Your task to perform on an android device: read, delete, or share a saved page in the chrome app Image 0: 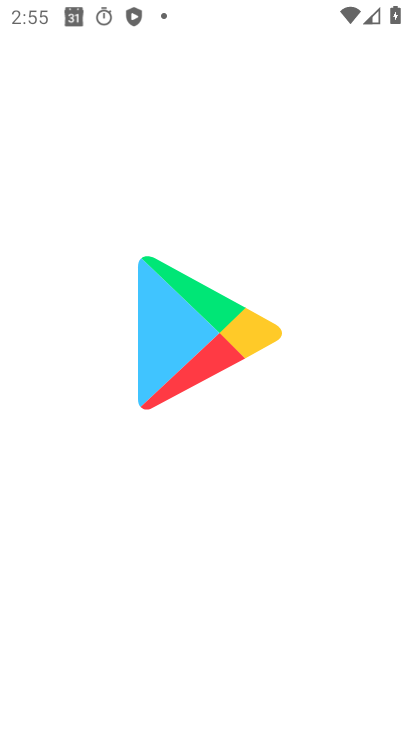
Step 0: drag from (399, 679) to (236, 60)
Your task to perform on an android device: read, delete, or share a saved page in the chrome app Image 1: 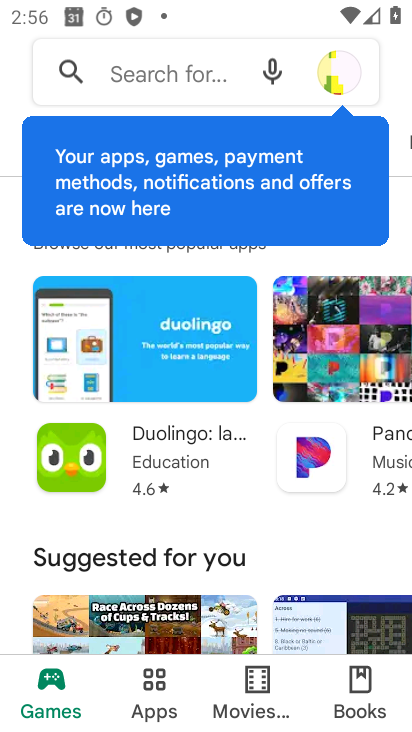
Step 1: press home button
Your task to perform on an android device: read, delete, or share a saved page in the chrome app Image 2: 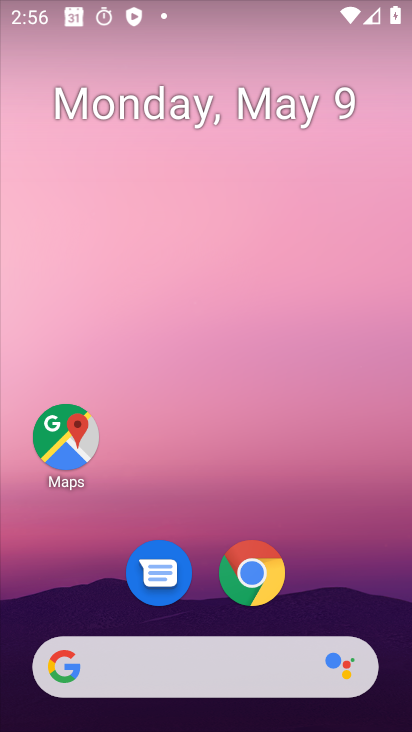
Step 2: drag from (391, 564) to (147, 173)
Your task to perform on an android device: read, delete, or share a saved page in the chrome app Image 3: 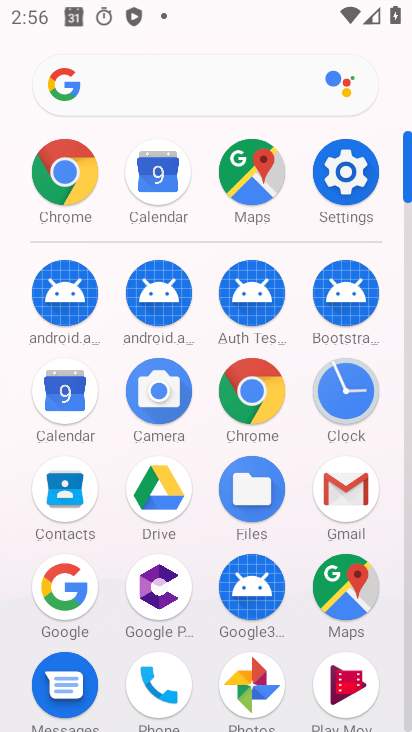
Step 3: click (263, 380)
Your task to perform on an android device: read, delete, or share a saved page in the chrome app Image 4: 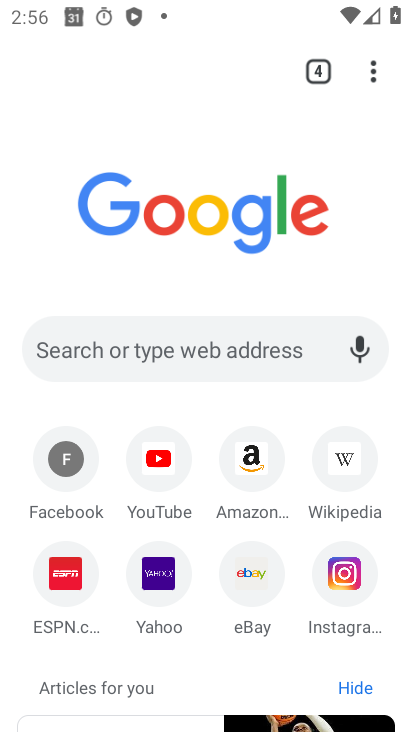
Step 4: click (366, 71)
Your task to perform on an android device: read, delete, or share a saved page in the chrome app Image 5: 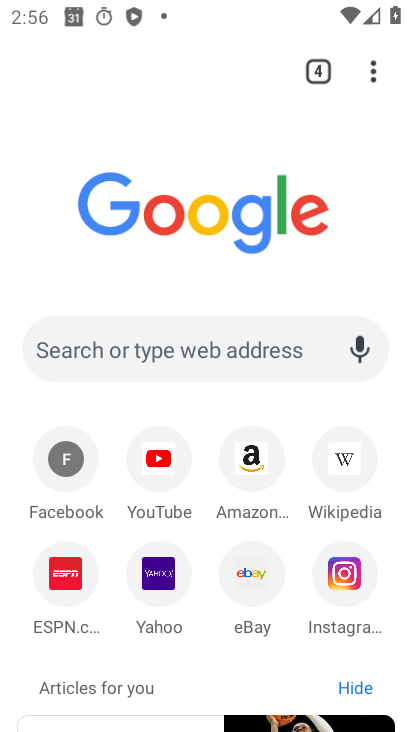
Step 5: click (365, 66)
Your task to perform on an android device: read, delete, or share a saved page in the chrome app Image 6: 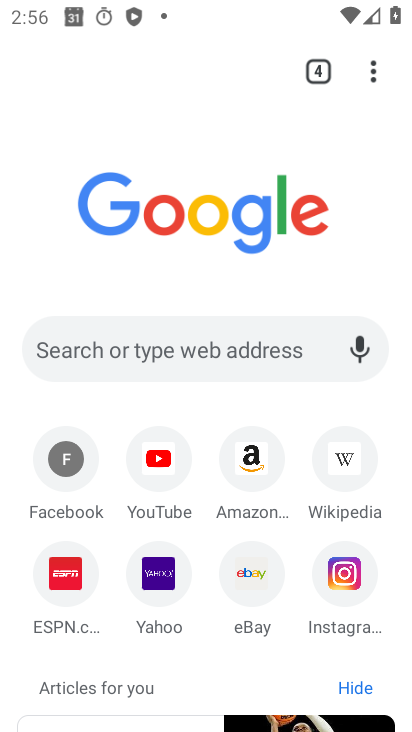
Step 6: click (372, 68)
Your task to perform on an android device: read, delete, or share a saved page in the chrome app Image 7: 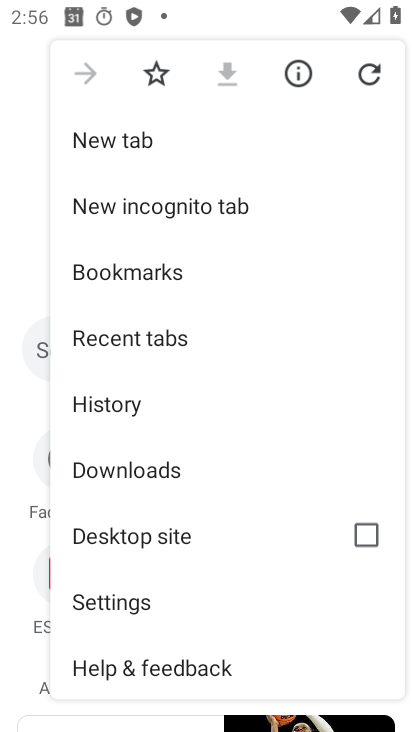
Step 7: click (372, 68)
Your task to perform on an android device: read, delete, or share a saved page in the chrome app Image 8: 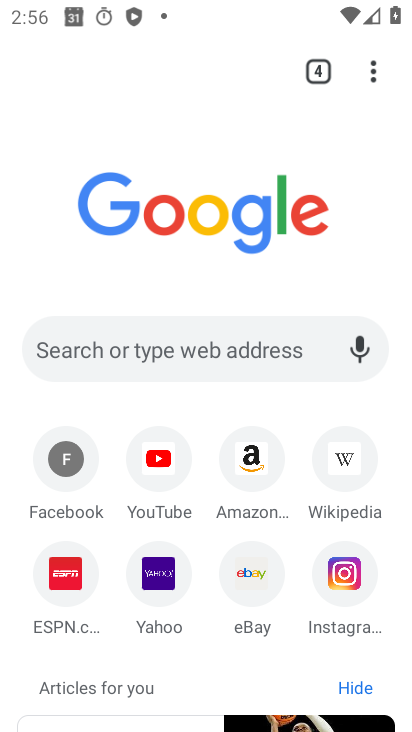
Step 8: click (372, 68)
Your task to perform on an android device: read, delete, or share a saved page in the chrome app Image 9: 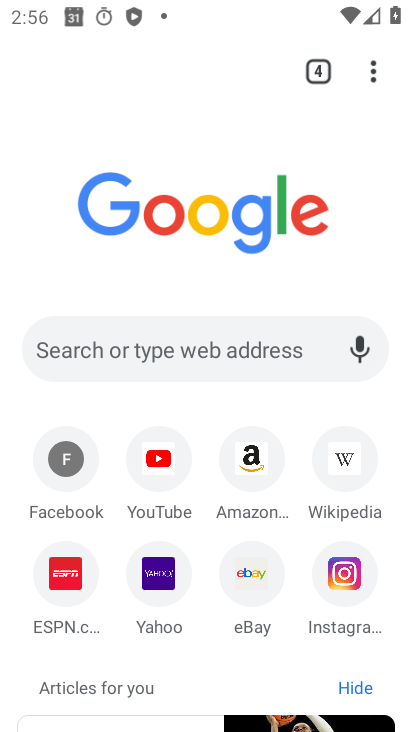
Step 9: click (372, 68)
Your task to perform on an android device: read, delete, or share a saved page in the chrome app Image 10: 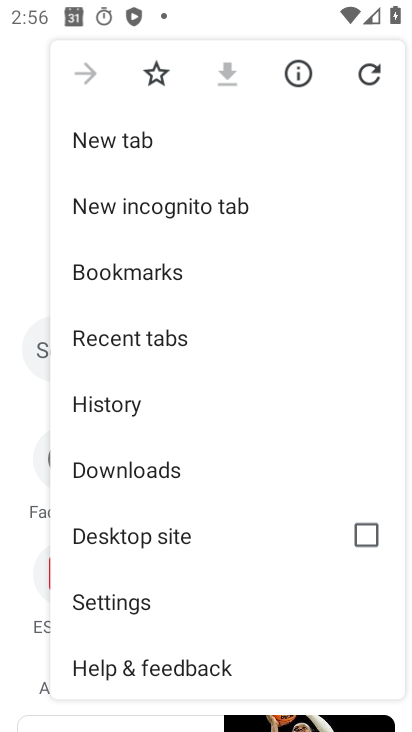
Step 10: click (128, 344)
Your task to perform on an android device: read, delete, or share a saved page in the chrome app Image 11: 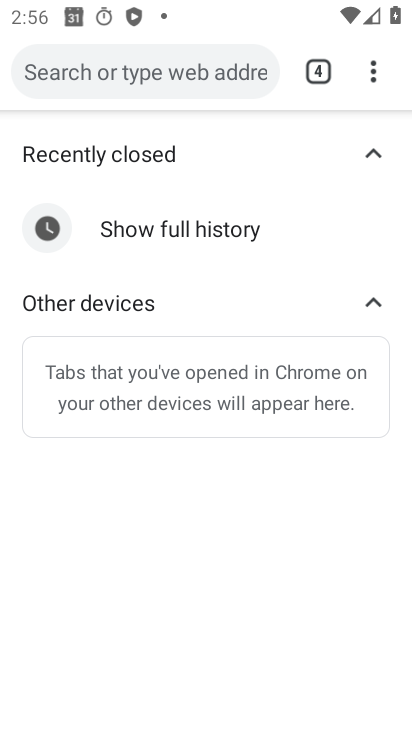
Step 11: click (361, 64)
Your task to perform on an android device: read, delete, or share a saved page in the chrome app Image 12: 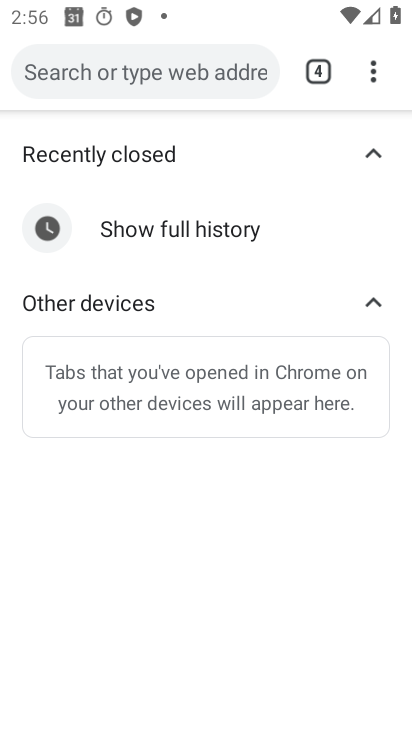
Step 12: click (362, 65)
Your task to perform on an android device: read, delete, or share a saved page in the chrome app Image 13: 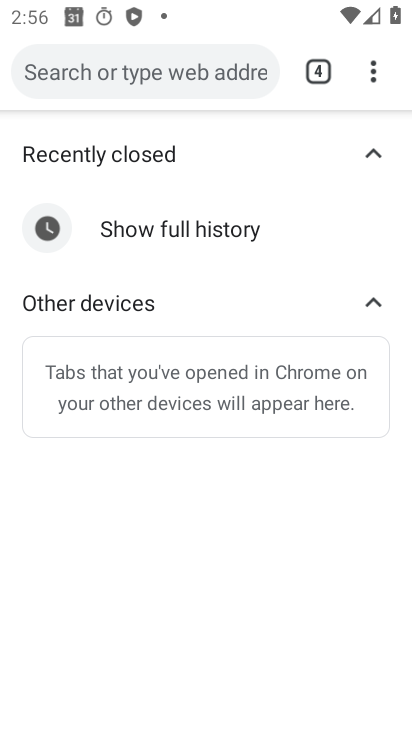
Step 13: drag from (371, 64) to (118, 464)
Your task to perform on an android device: read, delete, or share a saved page in the chrome app Image 14: 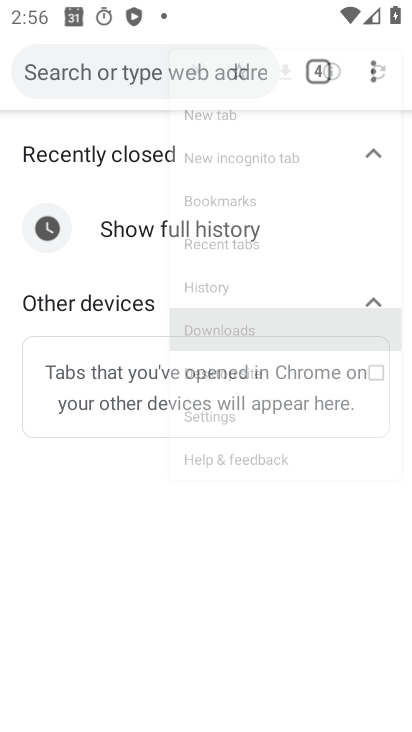
Step 14: click (118, 464)
Your task to perform on an android device: read, delete, or share a saved page in the chrome app Image 15: 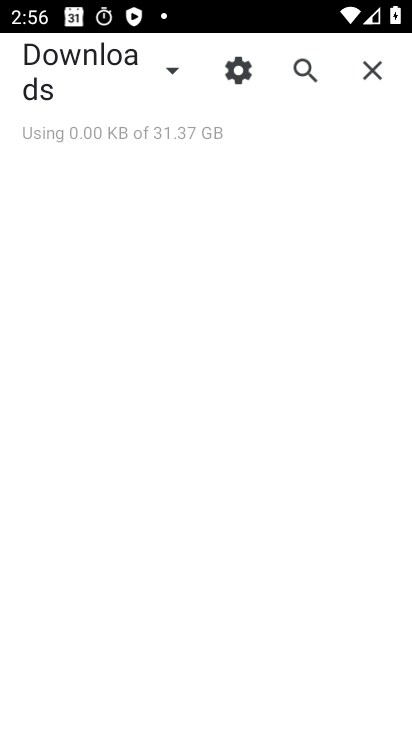
Step 15: click (176, 61)
Your task to perform on an android device: read, delete, or share a saved page in the chrome app Image 16: 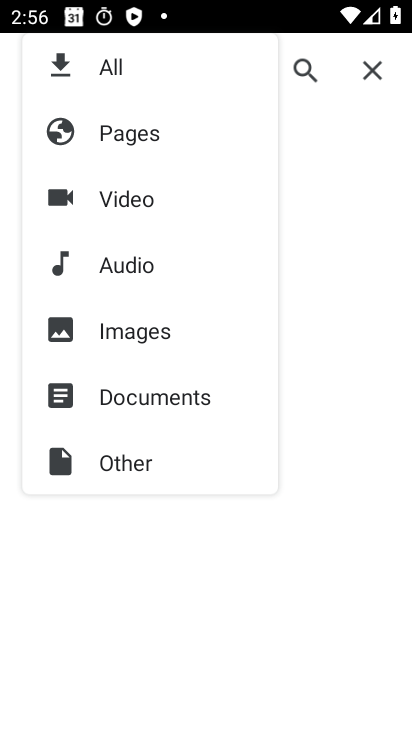
Step 16: click (127, 203)
Your task to perform on an android device: read, delete, or share a saved page in the chrome app Image 17: 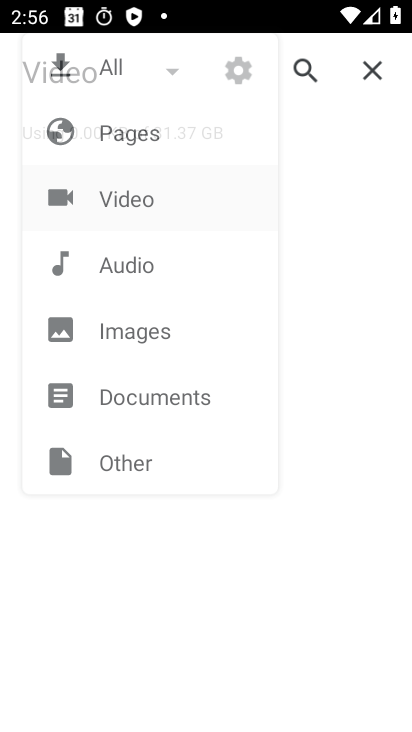
Step 17: click (126, 141)
Your task to perform on an android device: read, delete, or share a saved page in the chrome app Image 18: 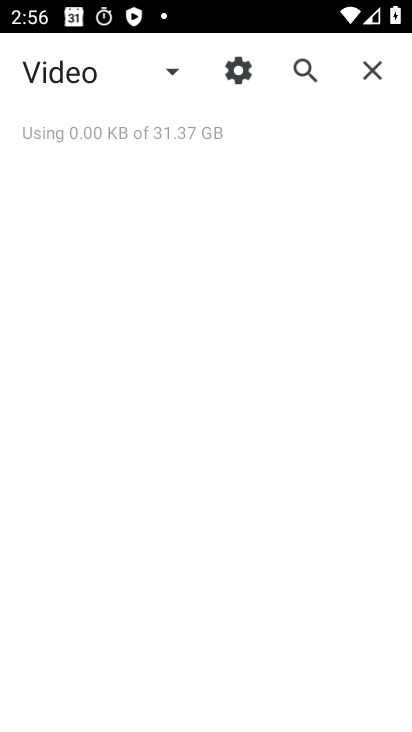
Step 18: task complete